Your task to perform on an android device: empty trash in the gmail app Image 0: 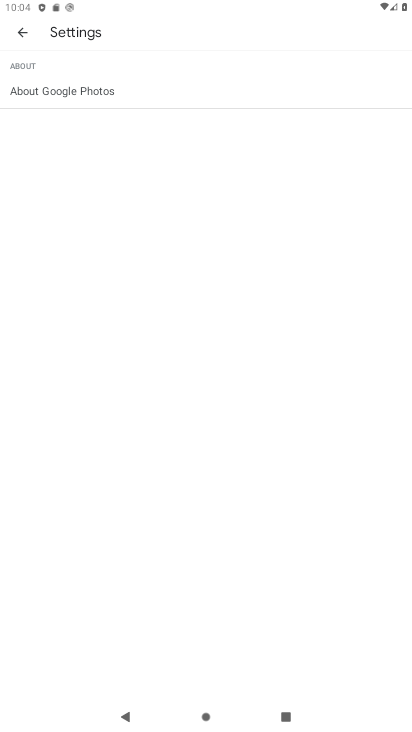
Step 0: press home button
Your task to perform on an android device: empty trash in the gmail app Image 1: 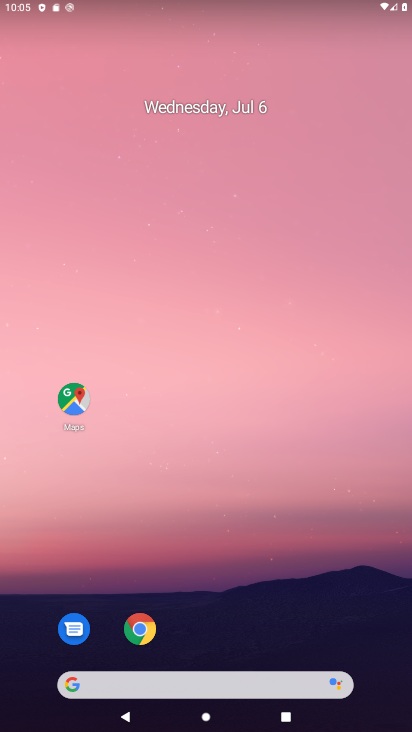
Step 1: drag from (20, 582) to (313, 69)
Your task to perform on an android device: empty trash in the gmail app Image 2: 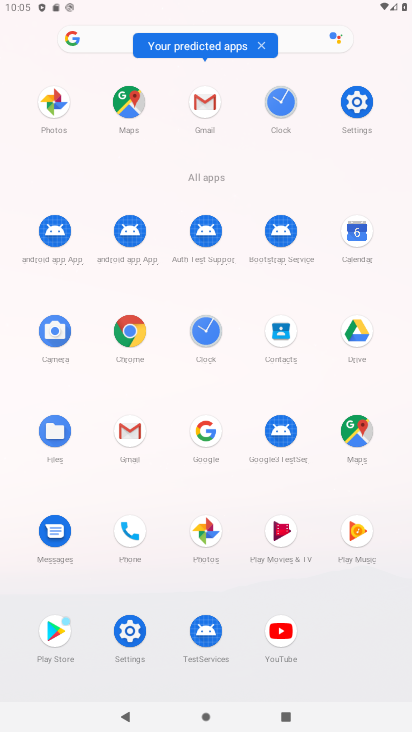
Step 2: click (213, 107)
Your task to perform on an android device: empty trash in the gmail app Image 3: 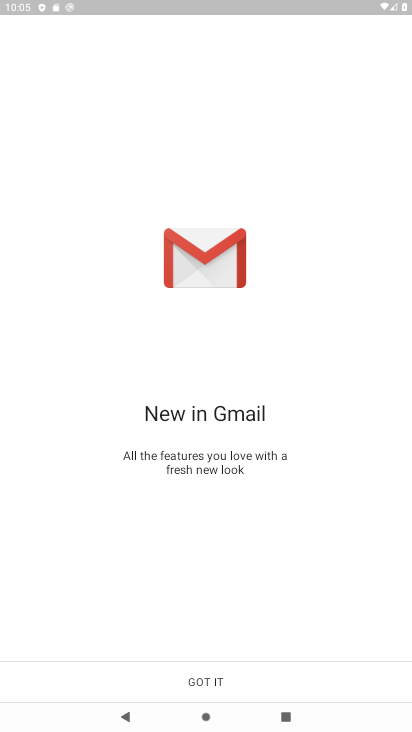
Step 3: click (209, 676)
Your task to perform on an android device: empty trash in the gmail app Image 4: 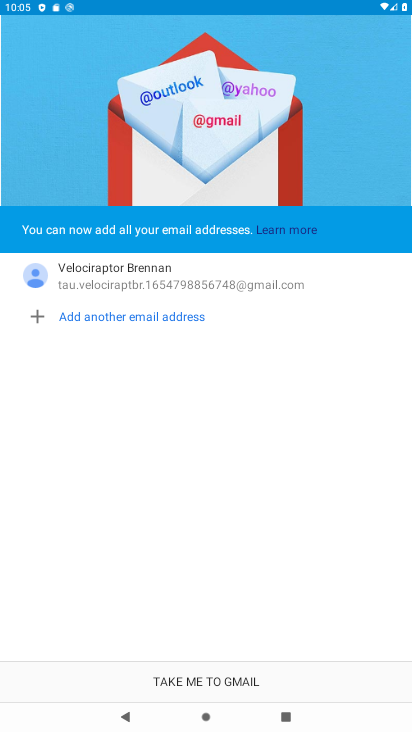
Step 4: click (192, 672)
Your task to perform on an android device: empty trash in the gmail app Image 5: 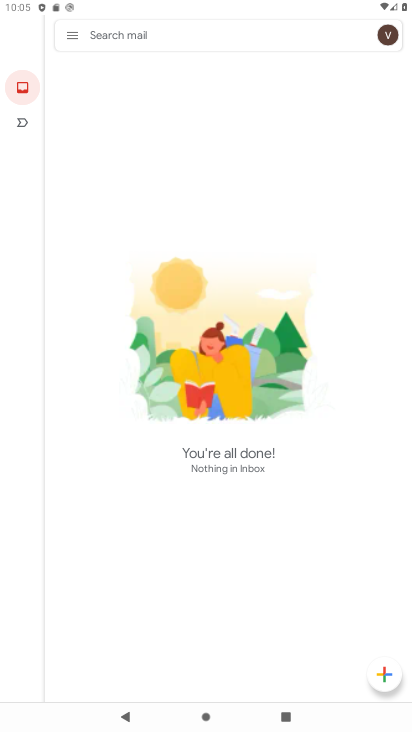
Step 5: click (67, 39)
Your task to perform on an android device: empty trash in the gmail app Image 6: 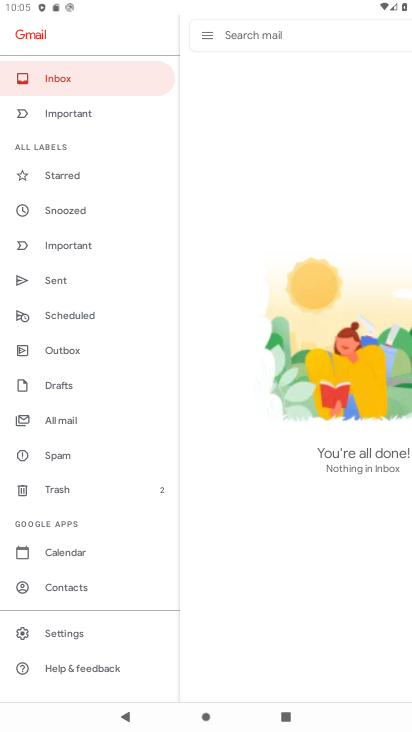
Step 6: click (51, 490)
Your task to perform on an android device: empty trash in the gmail app Image 7: 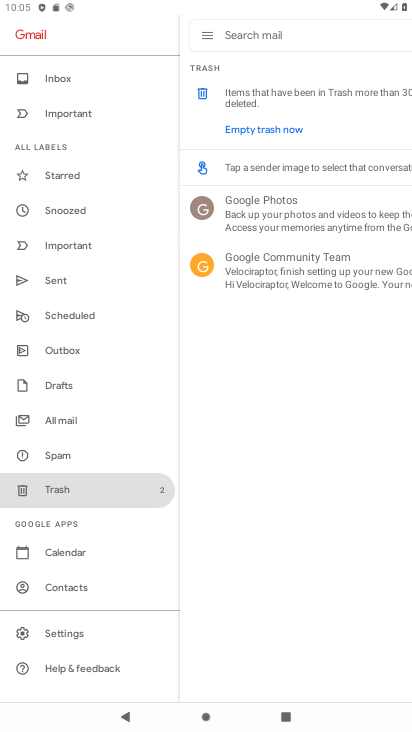
Step 7: click (208, 94)
Your task to perform on an android device: empty trash in the gmail app Image 8: 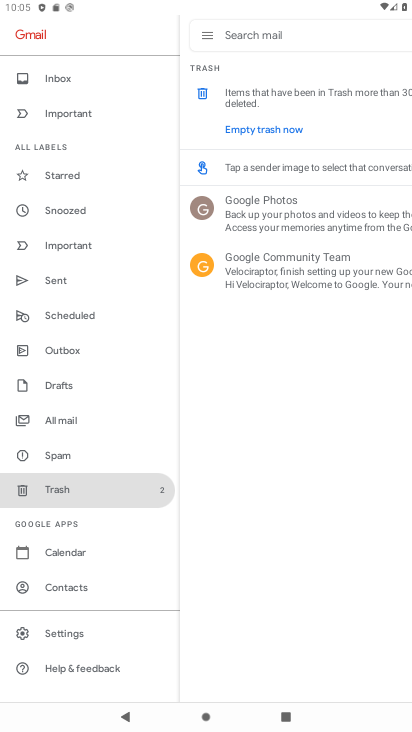
Step 8: click (85, 492)
Your task to perform on an android device: empty trash in the gmail app Image 9: 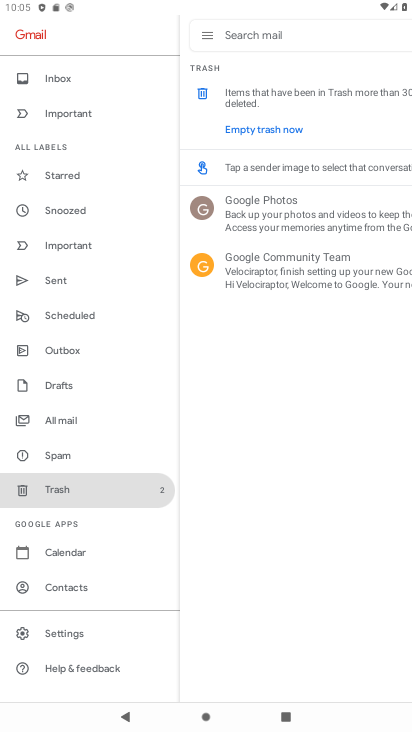
Step 9: click (102, 484)
Your task to perform on an android device: empty trash in the gmail app Image 10: 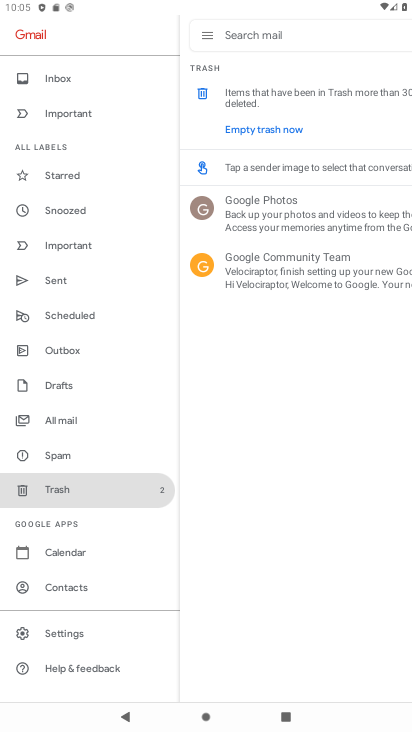
Step 10: press back button
Your task to perform on an android device: empty trash in the gmail app Image 11: 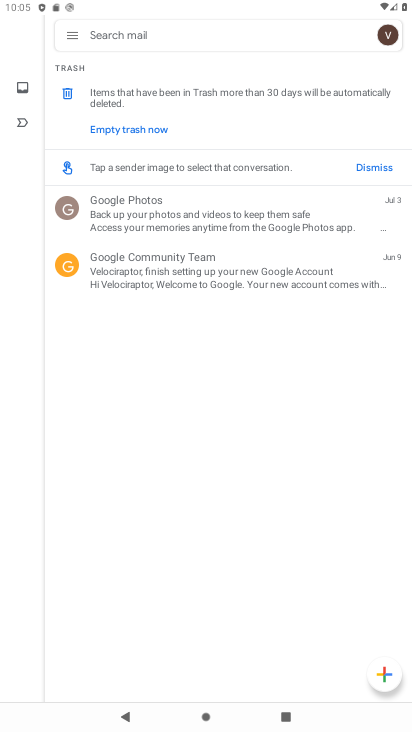
Step 11: click (125, 129)
Your task to perform on an android device: empty trash in the gmail app Image 12: 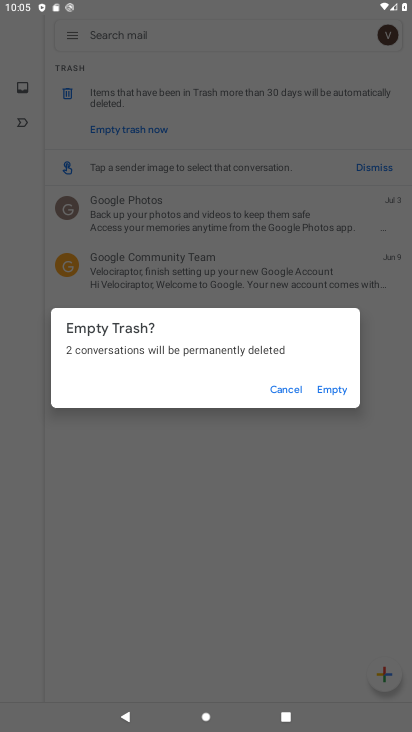
Step 12: click (337, 387)
Your task to perform on an android device: empty trash in the gmail app Image 13: 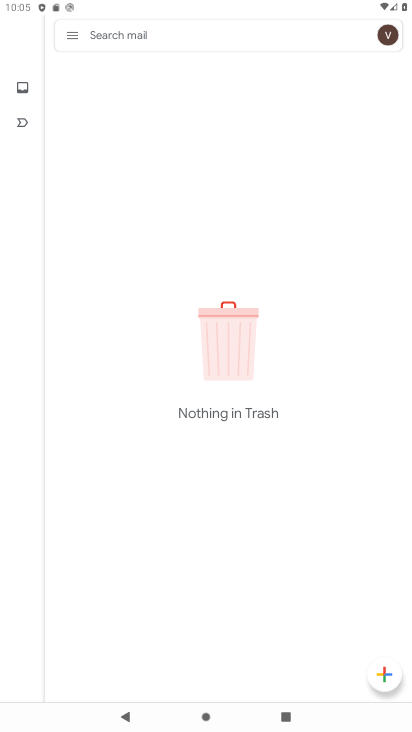
Step 13: task complete